Your task to perform on an android device: Search for logitech g933 on costco, select the first entry, and add it to the cart. Image 0: 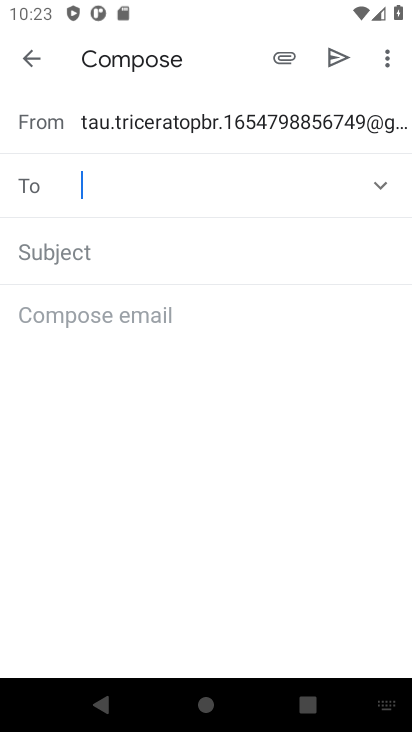
Step 0: press home button
Your task to perform on an android device: Search for logitech g933 on costco, select the first entry, and add it to the cart. Image 1: 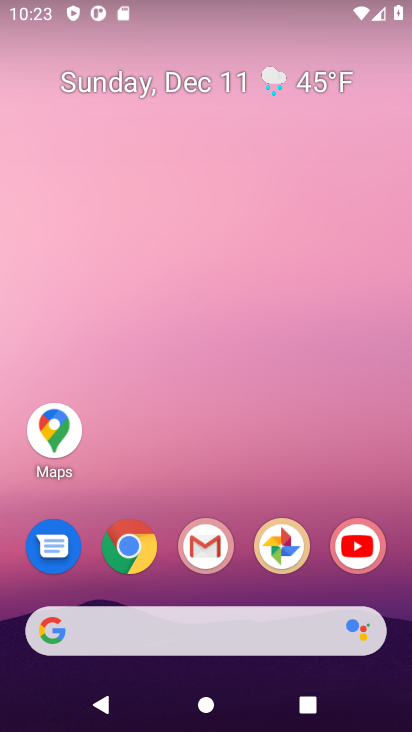
Step 1: click (133, 552)
Your task to perform on an android device: Search for logitech g933 on costco, select the first entry, and add it to the cart. Image 2: 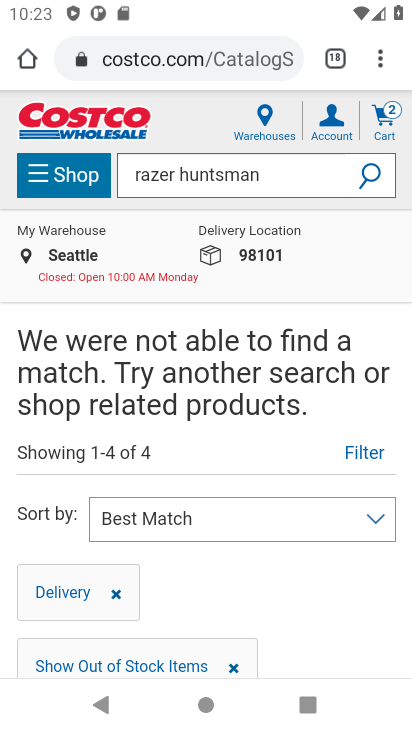
Step 2: click (180, 183)
Your task to perform on an android device: Search for logitech g933 on costco, select the first entry, and add it to the cart. Image 3: 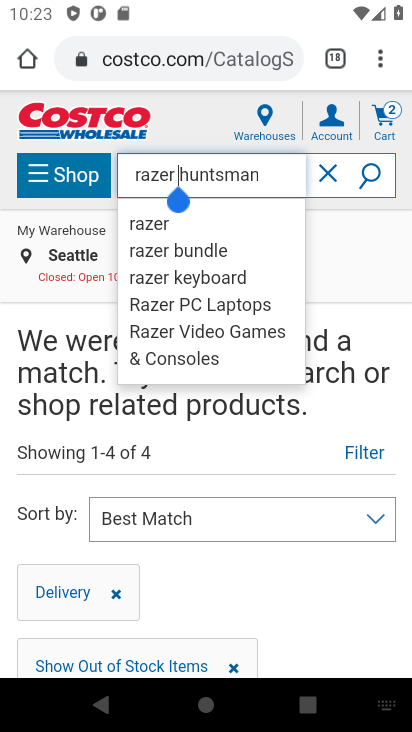
Step 3: click (327, 179)
Your task to perform on an android device: Search for logitech g933 on costco, select the first entry, and add it to the cart. Image 4: 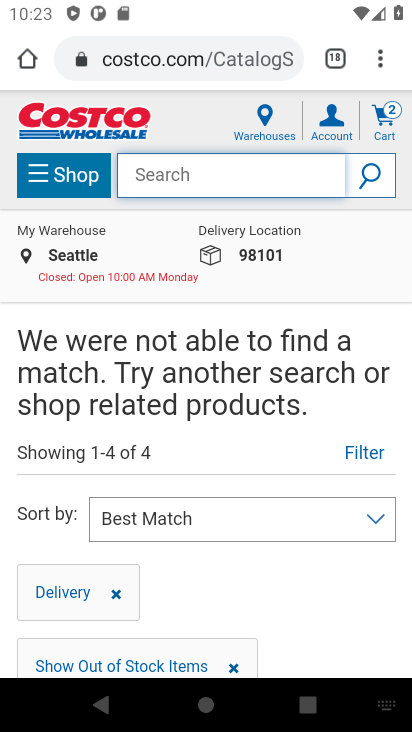
Step 4: type " logitech g933"
Your task to perform on an android device: Search for logitech g933 on costco, select the first entry, and add it to the cart. Image 5: 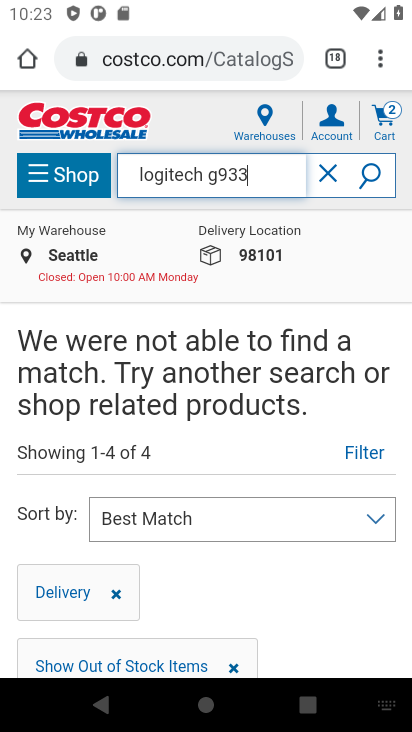
Step 5: click (371, 171)
Your task to perform on an android device: Search for logitech g933 on costco, select the first entry, and add it to the cart. Image 6: 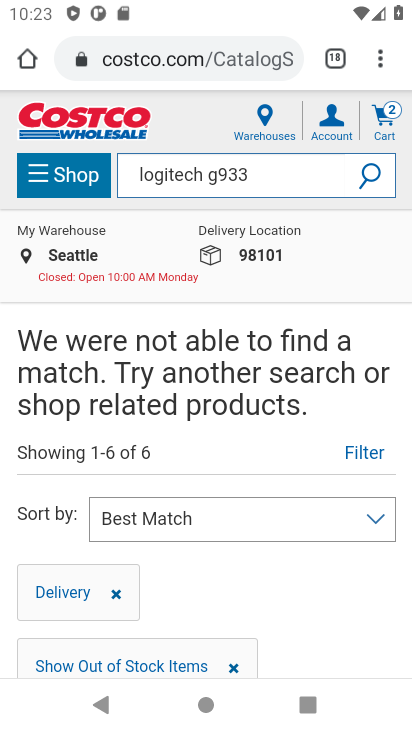
Step 6: task complete